Your task to perform on an android device: check out phone information Image 0: 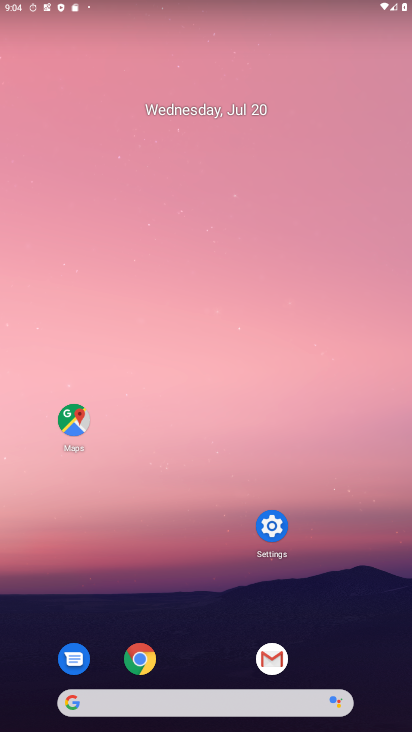
Step 0: click (258, 539)
Your task to perform on an android device: check out phone information Image 1: 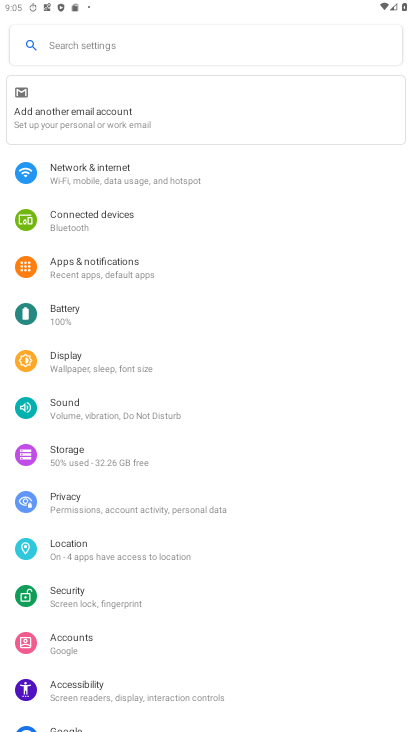
Step 1: click (102, 50)
Your task to perform on an android device: check out phone information Image 2: 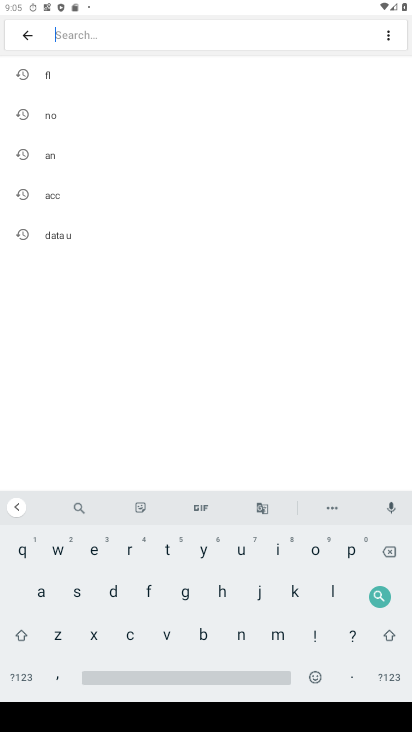
Step 2: click (47, 581)
Your task to perform on an android device: check out phone information Image 3: 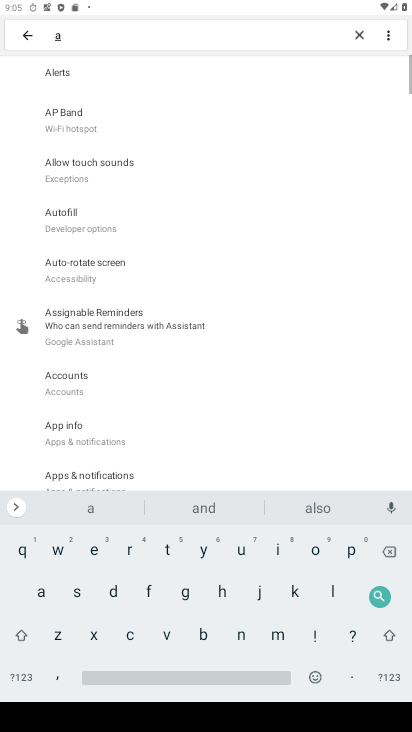
Step 3: click (204, 636)
Your task to perform on an android device: check out phone information Image 4: 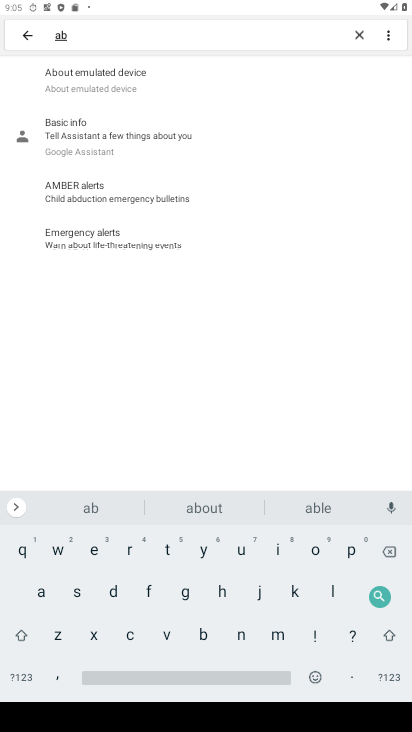
Step 4: click (77, 81)
Your task to perform on an android device: check out phone information Image 5: 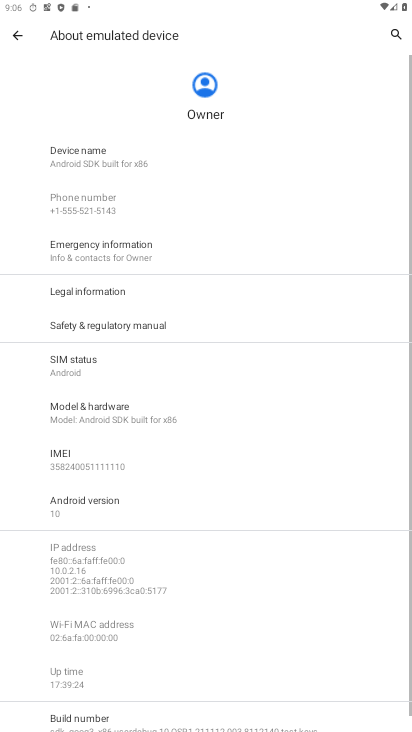
Step 5: task complete